Your task to perform on an android device: Open Google Maps and go to "Timeline" Image 0: 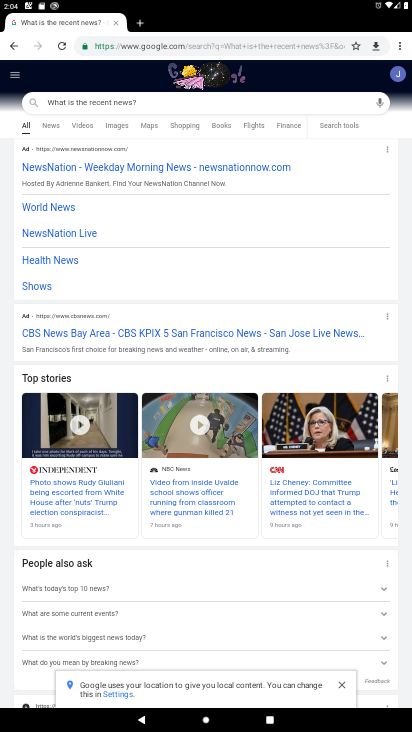
Step 0: press home button
Your task to perform on an android device: Open Google Maps and go to "Timeline" Image 1: 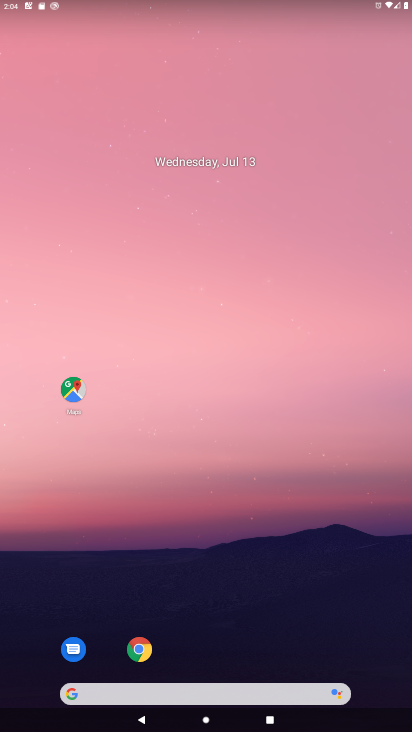
Step 1: click (91, 389)
Your task to perform on an android device: Open Google Maps and go to "Timeline" Image 2: 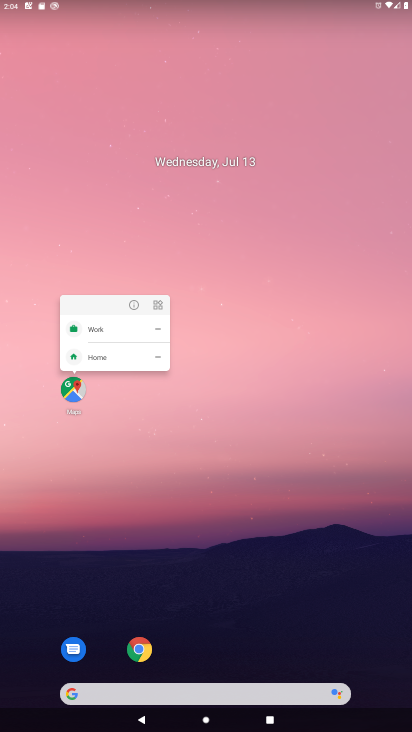
Step 2: click (91, 389)
Your task to perform on an android device: Open Google Maps and go to "Timeline" Image 3: 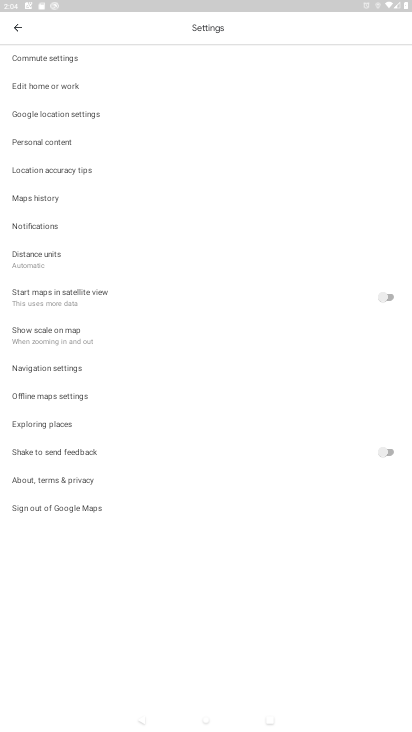
Step 3: click (13, 29)
Your task to perform on an android device: Open Google Maps and go to "Timeline" Image 4: 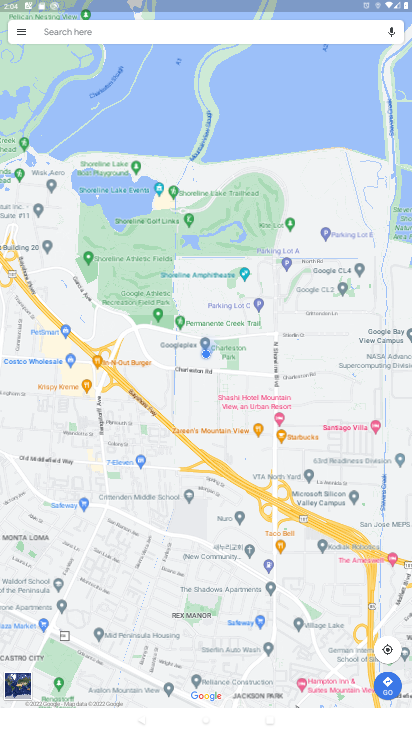
Step 4: click (13, 29)
Your task to perform on an android device: Open Google Maps and go to "Timeline" Image 5: 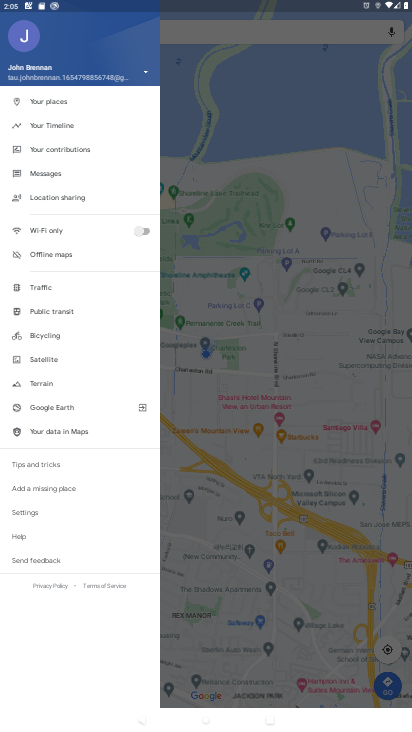
Step 5: click (50, 123)
Your task to perform on an android device: Open Google Maps and go to "Timeline" Image 6: 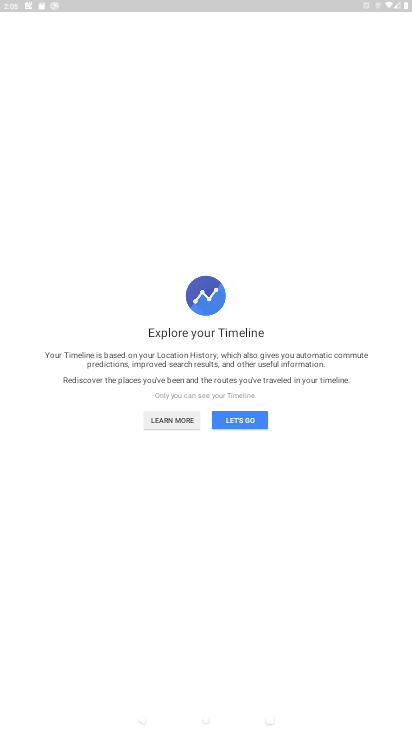
Step 6: click (230, 434)
Your task to perform on an android device: Open Google Maps and go to "Timeline" Image 7: 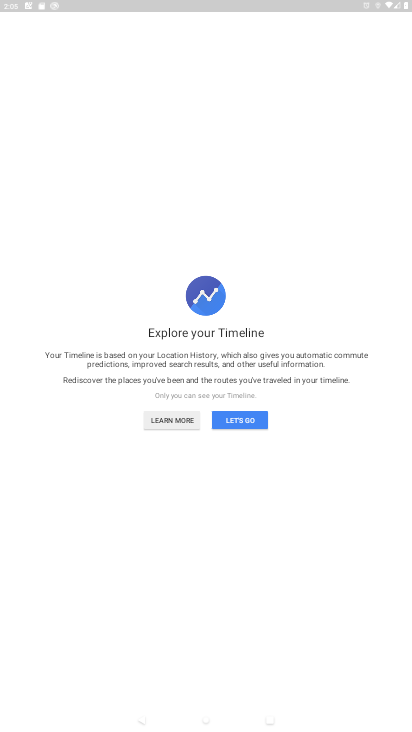
Step 7: click (224, 422)
Your task to perform on an android device: Open Google Maps and go to "Timeline" Image 8: 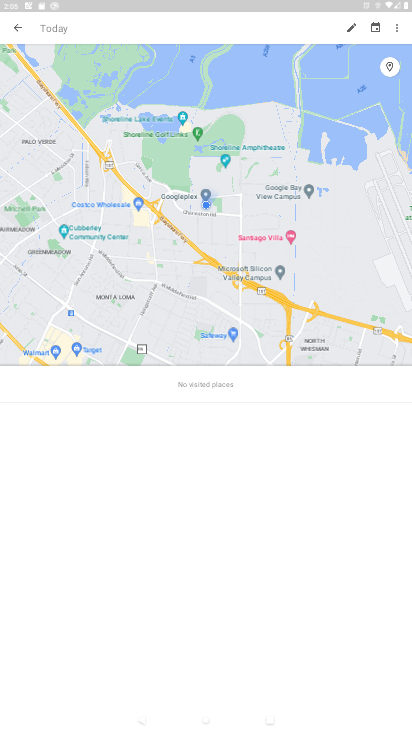
Step 8: task complete